Your task to perform on an android device: remove spam from my inbox in the gmail app Image 0: 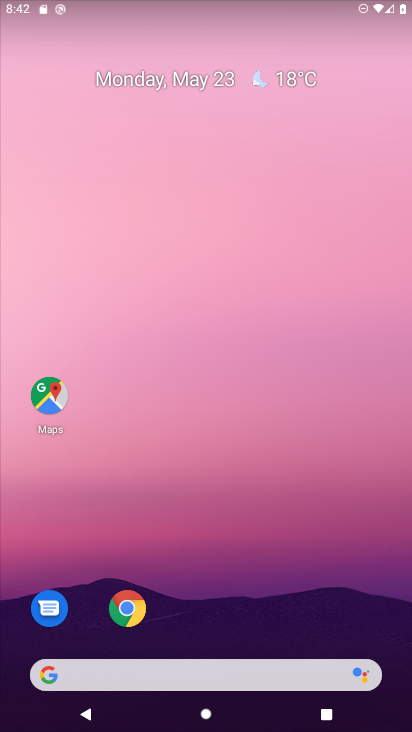
Step 0: click (362, 605)
Your task to perform on an android device: remove spam from my inbox in the gmail app Image 1: 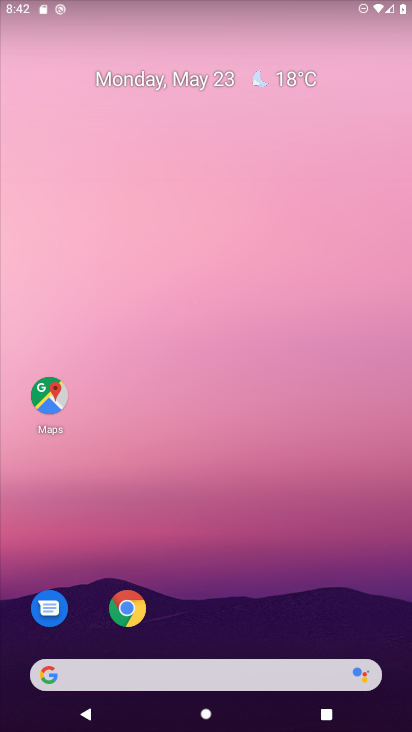
Step 1: drag from (243, 726) to (147, 32)
Your task to perform on an android device: remove spam from my inbox in the gmail app Image 2: 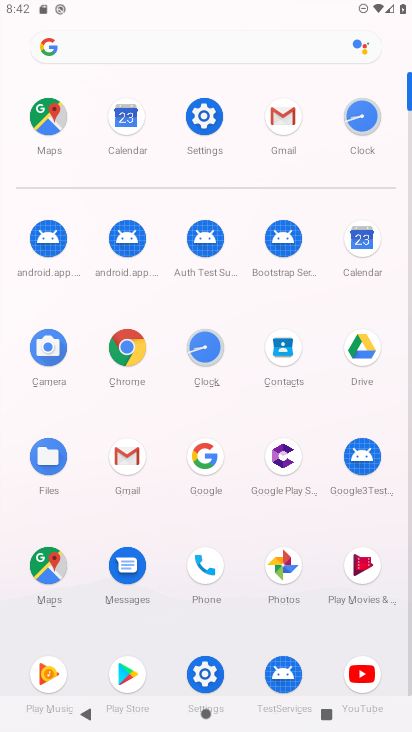
Step 2: click (130, 461)
Your task to perform on an android device: remove spam from my inbox in the gmail app Image 3: 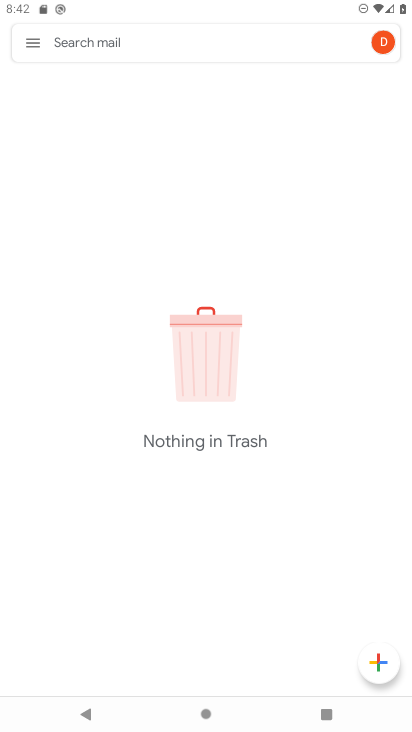
Step 3: click (28, 35)
Your task to perform on an android device: remove spam from my inbox in the gmail app Image 4: 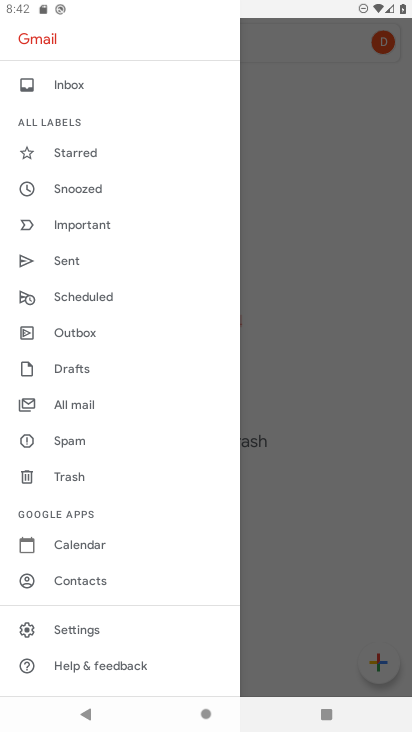
Step 4: click (90, 82)
Your task to perform on an android device: remove spam from my inbox in the gmail app Image 5: 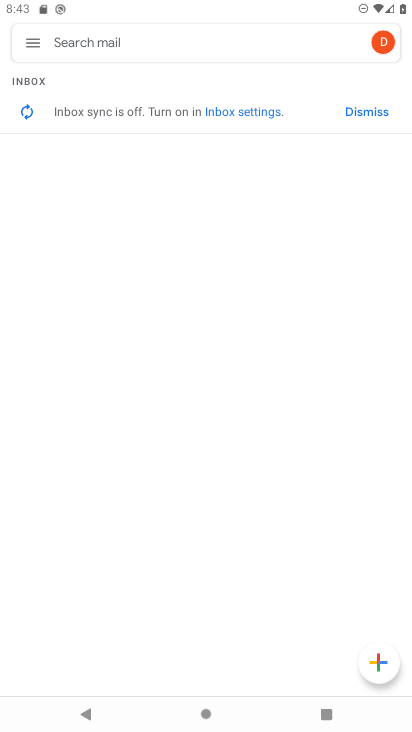
Step 5: task complete